Your task to perform on an android device: Open Wikipedia Image 0: 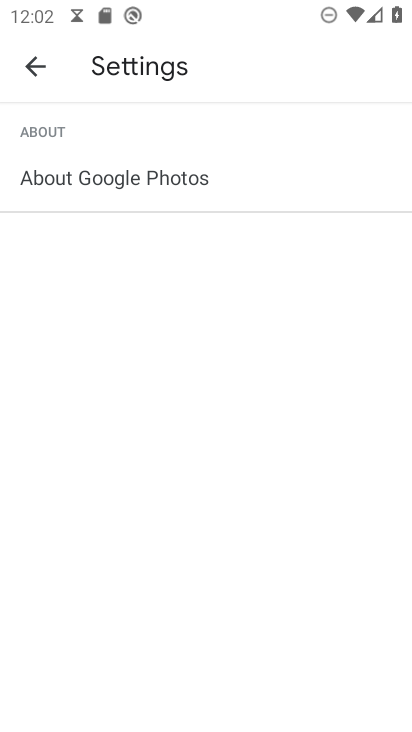
Step 0: press home button
Your task to perform on an android device: Open Wikipedia Image 1: 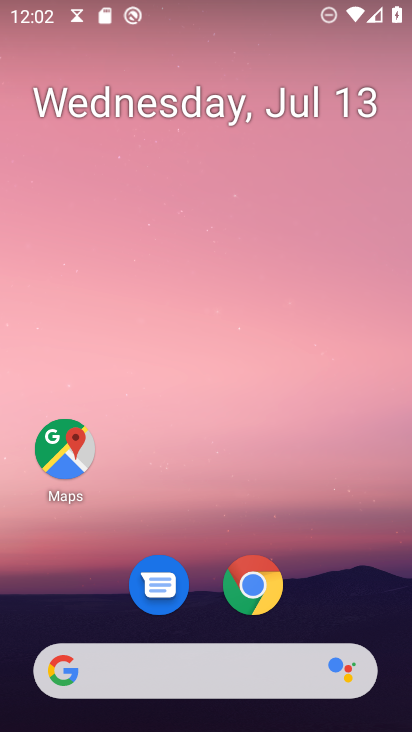
Step 1: click (252, 597)
Your task to perform on an android device: Open Wikipedia Image 2: 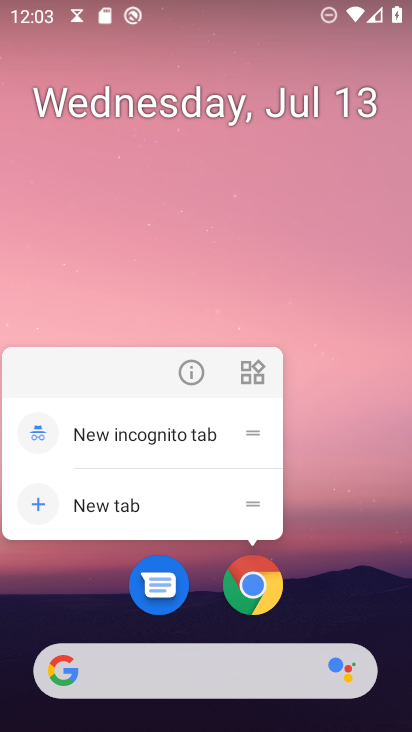
Step 2: click (254, 582)
Your task to perform on an android device: Open Wikipedia Image 3: 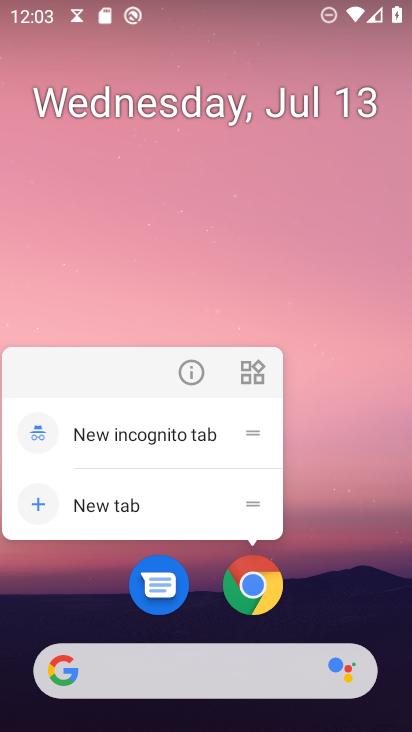
Step 3: click (254, 584)
Your task to perform on an android device: Open Wikipedia Image 4: 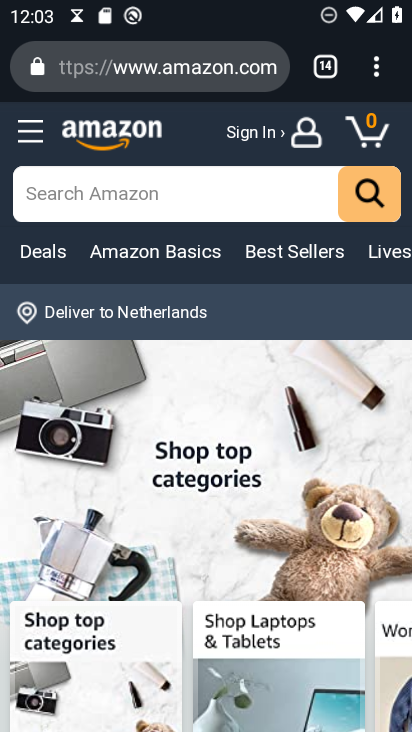
Step 4: drag from (379, 79) to (199, 145)
Your task to perform on an android device: Open Wikipedia Image 5: 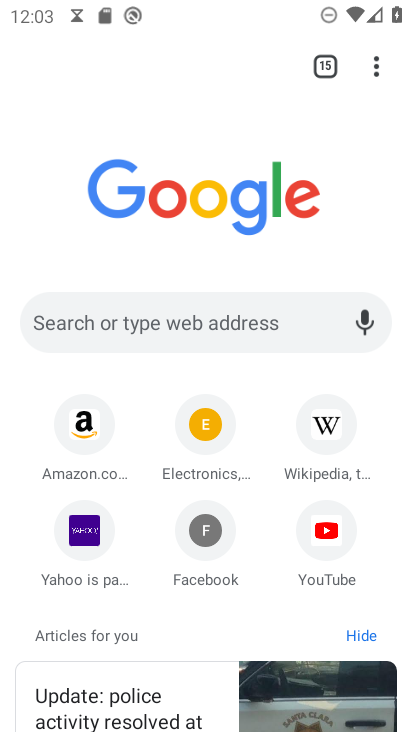
Step 5: click (328, 420)
Your task to perform on an android device: Open Wikipedia Image 6: 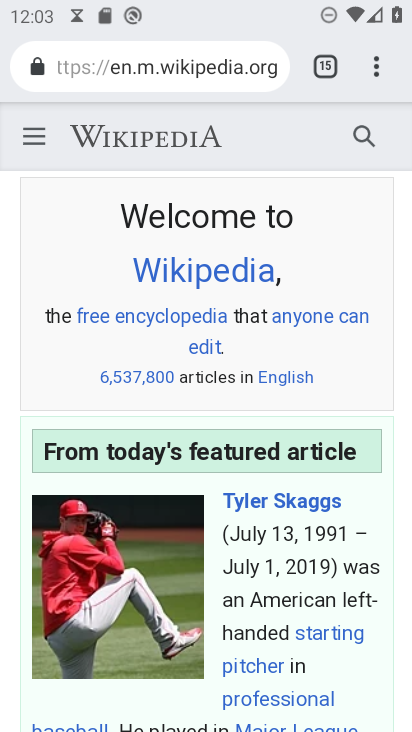
Step 6: task complete